Your task to perform on an android device: Search for "corsair k70" on target.com, select the first entry, add it to the cart, then select checkout. Image 0: 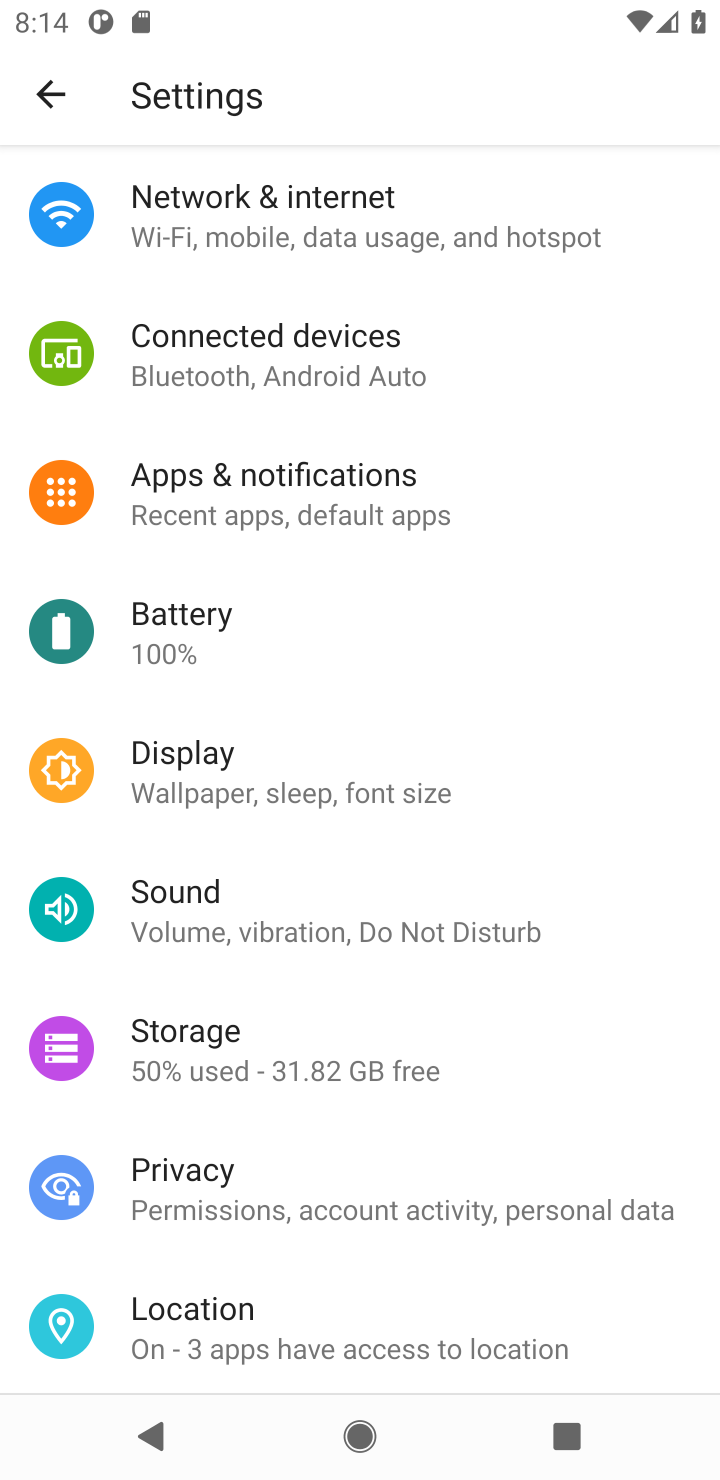
Step 0: press home button
Your task to perform on an android device: Search for "corsair k70" on target.com, select the first entry, add it to the cart, then select checkout. Image 1: 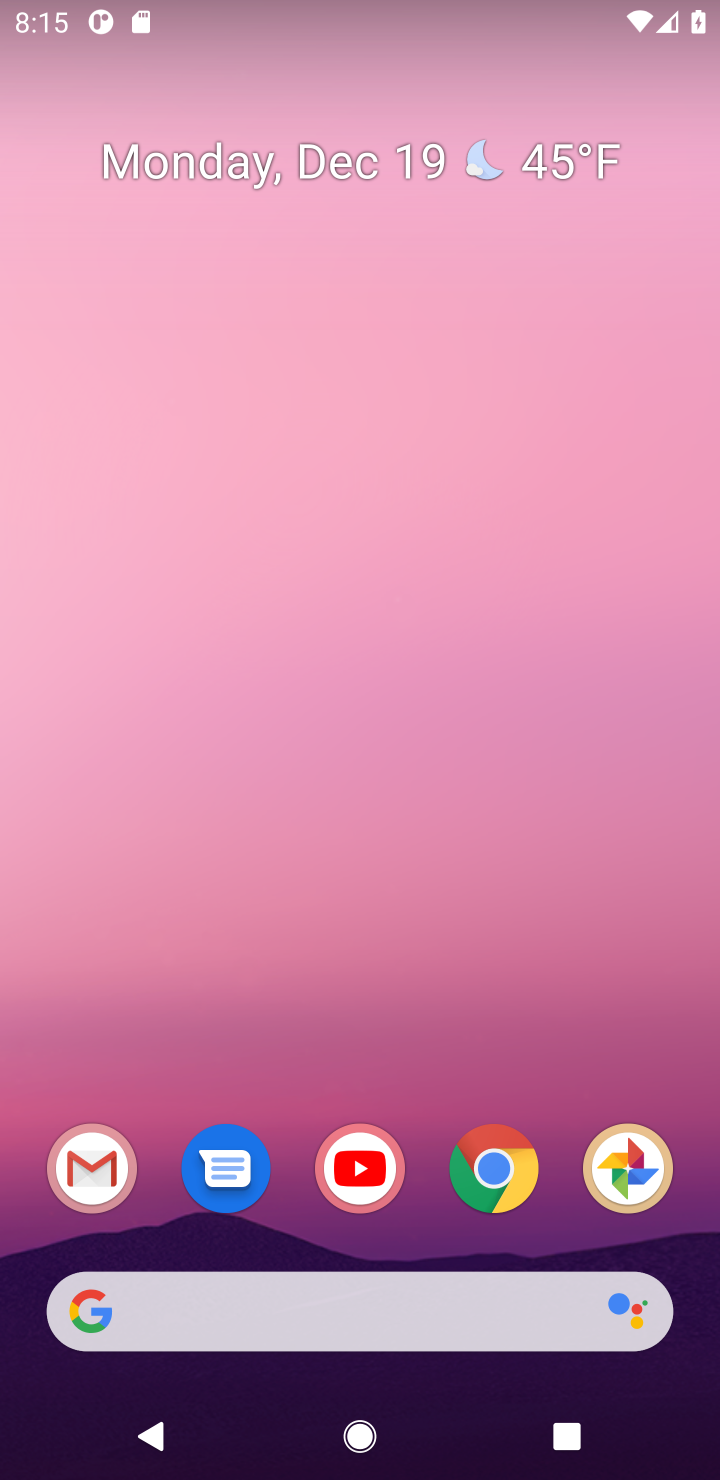
Step 1: click (502, 1173)
Your task to perform on an android device: Search for "corsair k70" on target.com, select the first entry, add it to the cart, then select checkout. Image 2: 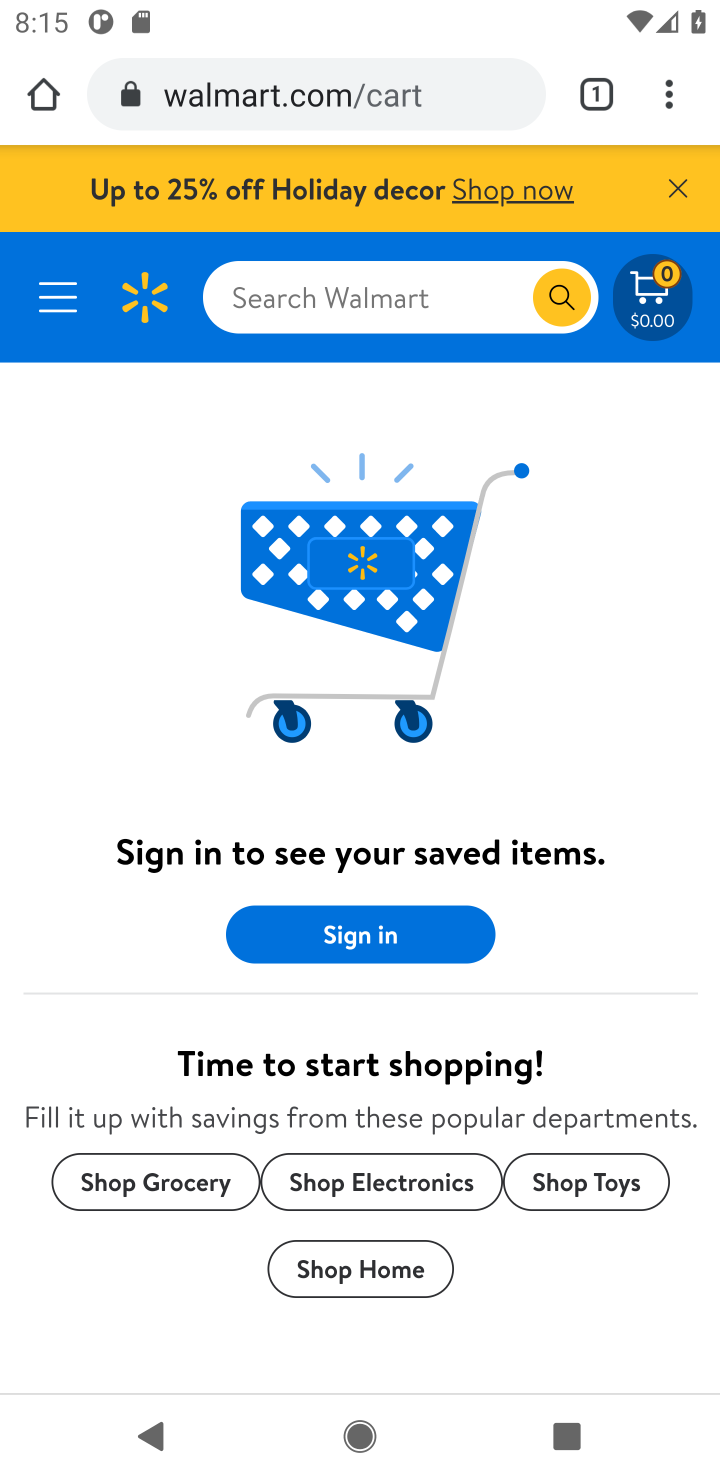
Step 2: click (261, 100)
Your task to perform on an android device: Search for "corsair k70" on target.com, select the first entry, add it to the cart, then select checkout. Image 3: 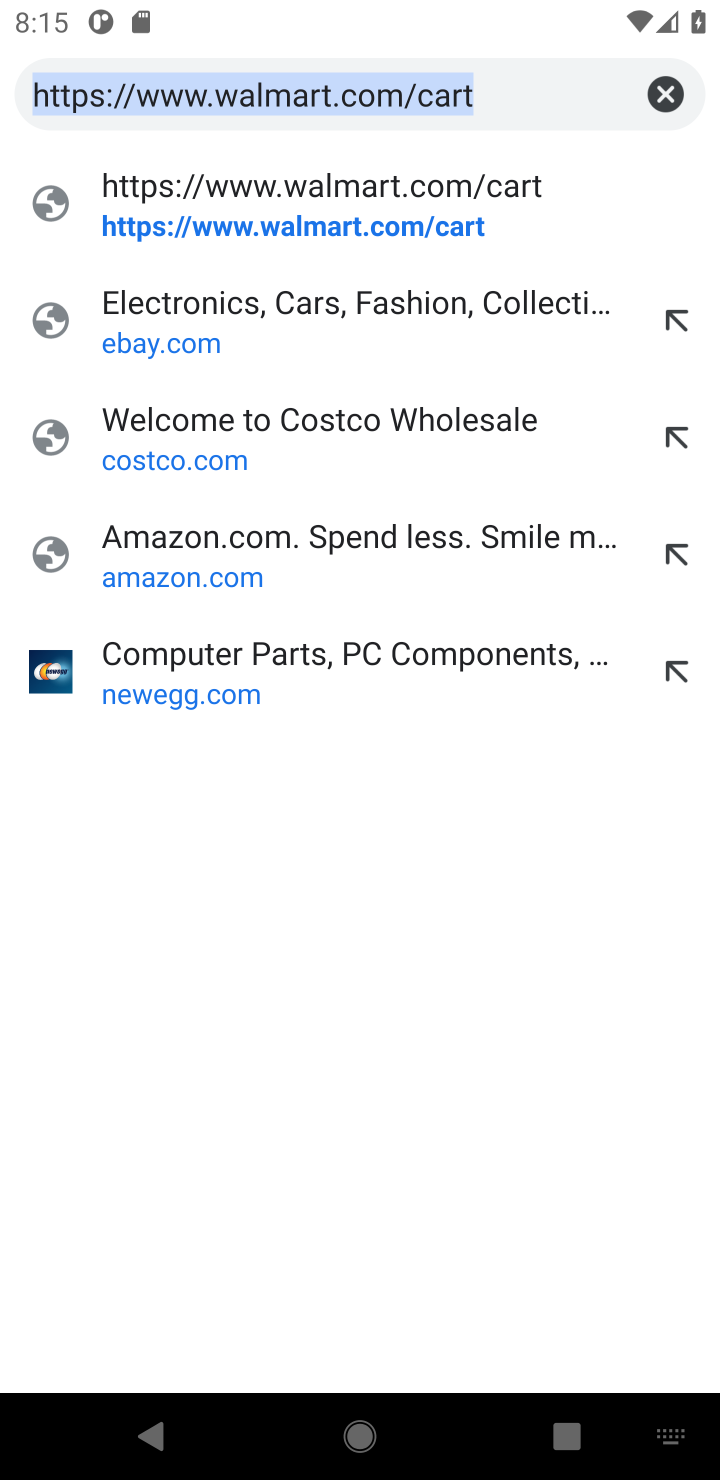
Step 3: type "target.com"
Your task to perform on an android device: Search for "corsair k70" on target.com, select the first entry, add it to the cart, then select checkout. Image 4: 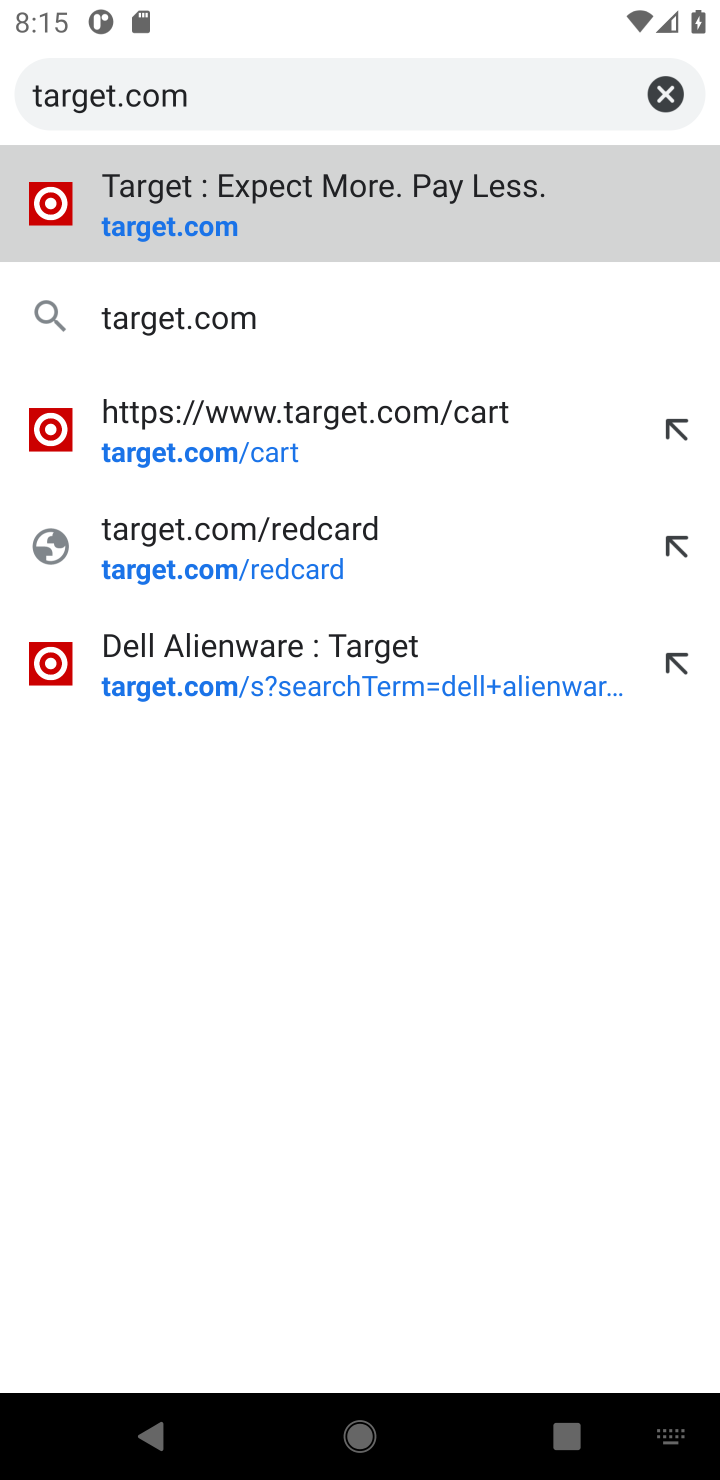
Step 4: click (187, 228)
Your task to perform on an android device: Search for "corsair k70" on target.com, select the first entry, add it to the cart, then select checkout. Image 5: 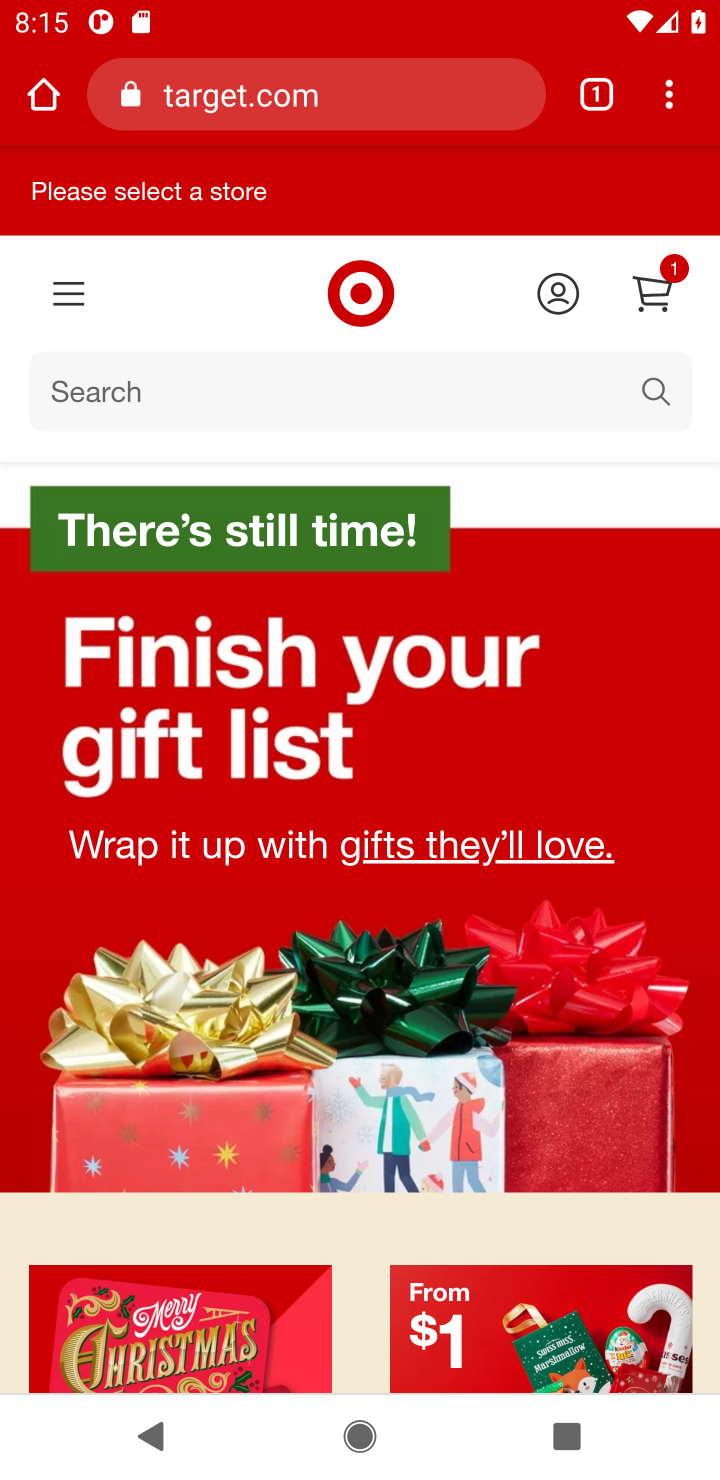
Step 5: click (58, 389)
Your task to perform on an android device: Search for "corsair k70" on target.com, select the first entry, add it to the cart, then select checkout. Image 6: 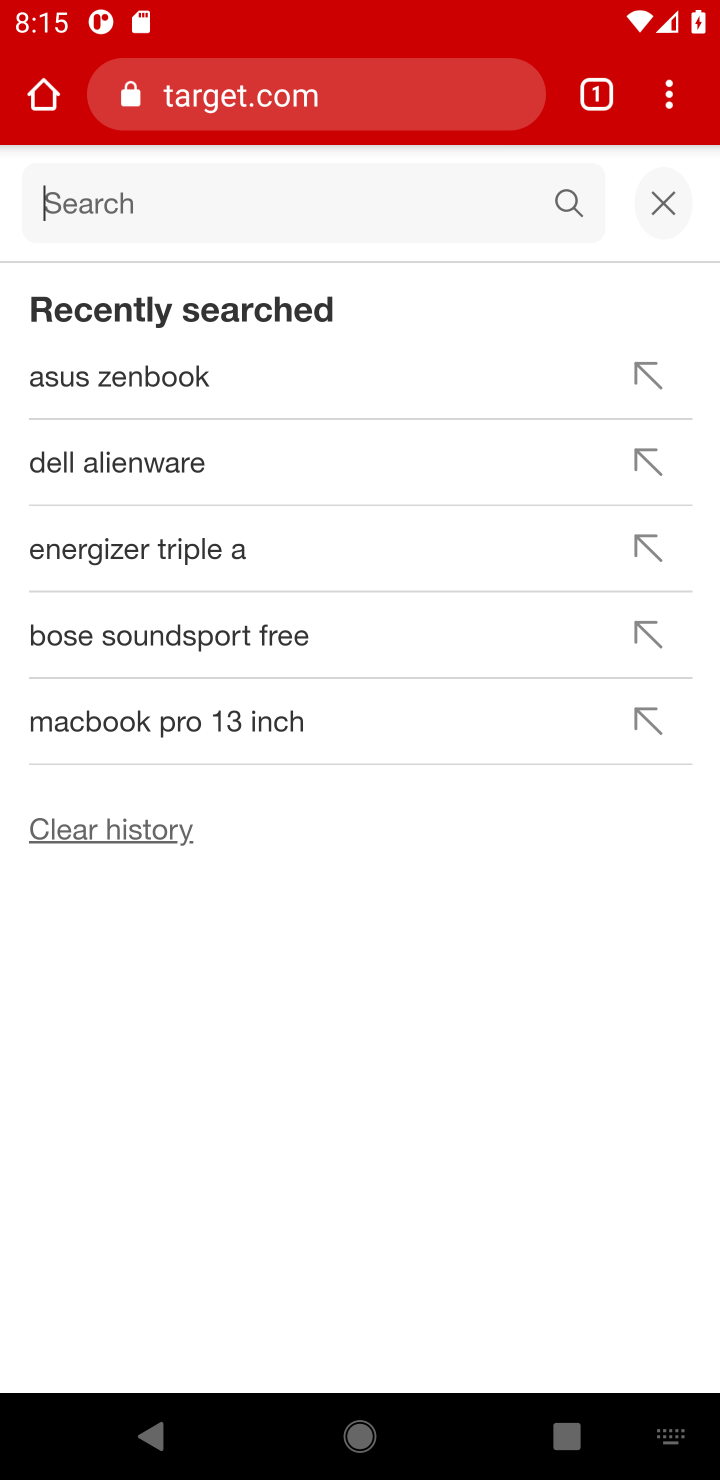
Step 6: type "corsair k70"
Your task to perform on an android device: Search for "corsair k70" on target.com, select the first entry, add it to the cart, then select checkout. Image 7: 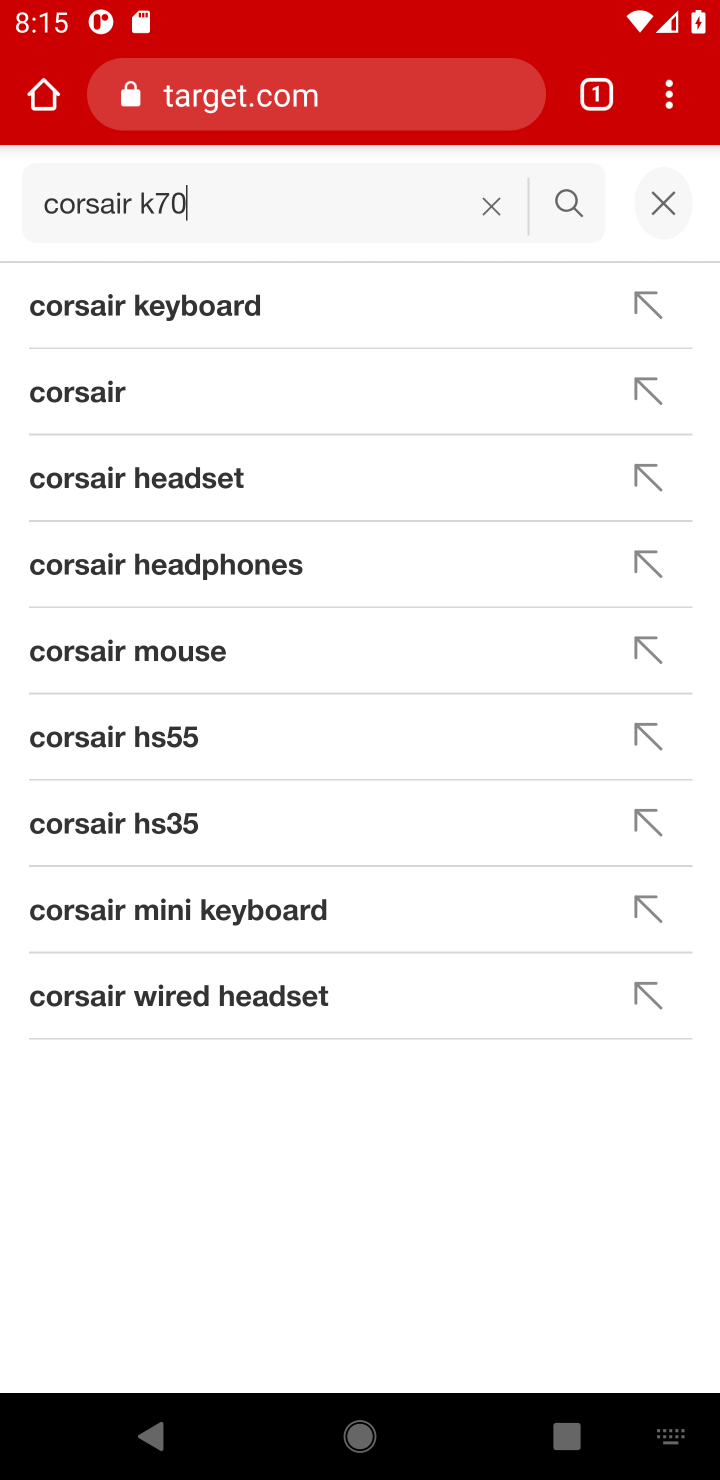
Step 7: click (562, 211)
Your task to perform on an android device: Search for "corsair k70" on target.com, select the first entry, add it to the cart, then select checkout. Image 8: 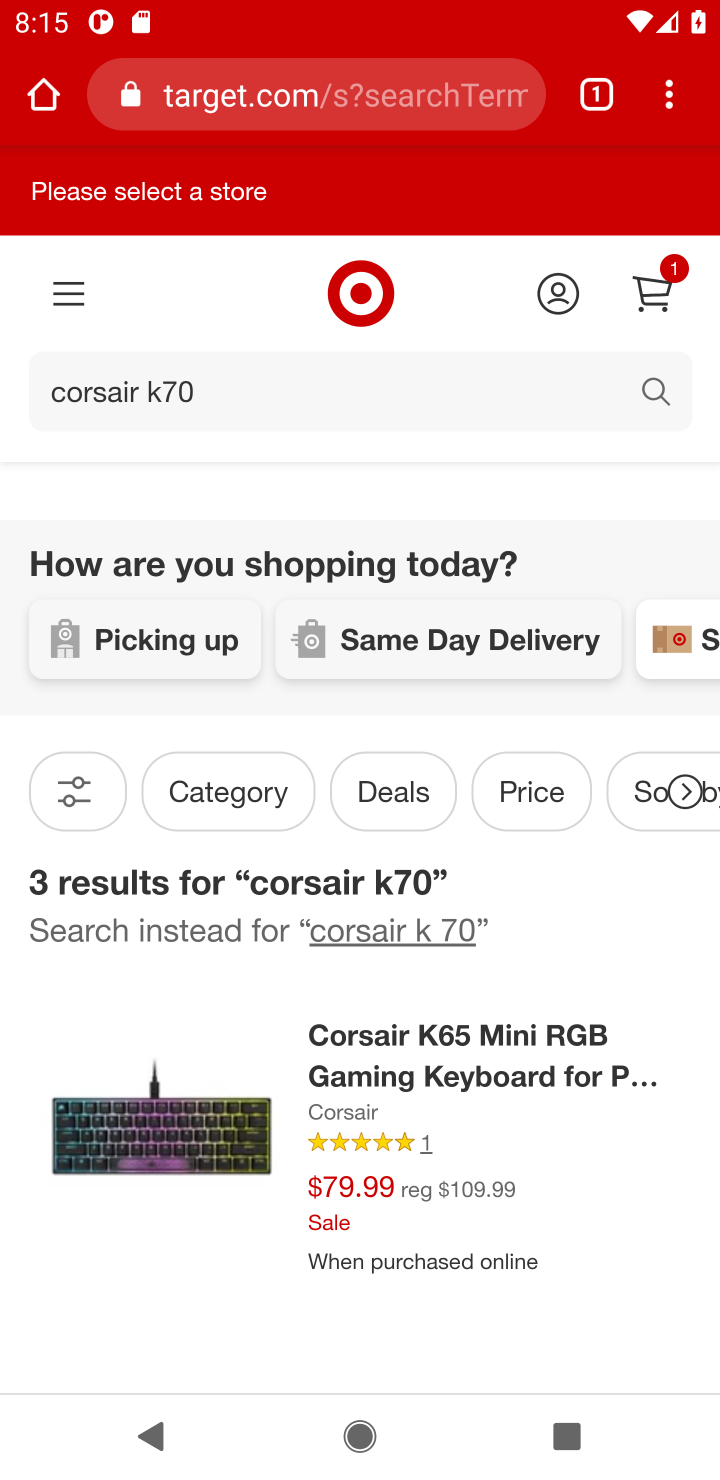
Step 8: task complete